Your task to perform on an android device: When is my next meeting? Image 0: 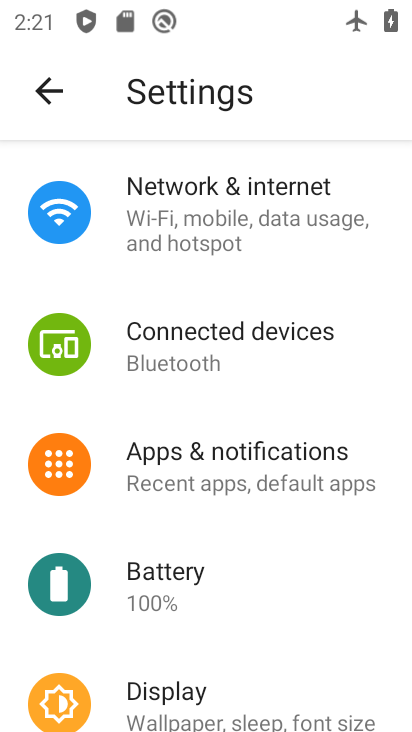
Step 0: press home button
Your task to perform on an android device: When is my next meeting? Image 1: 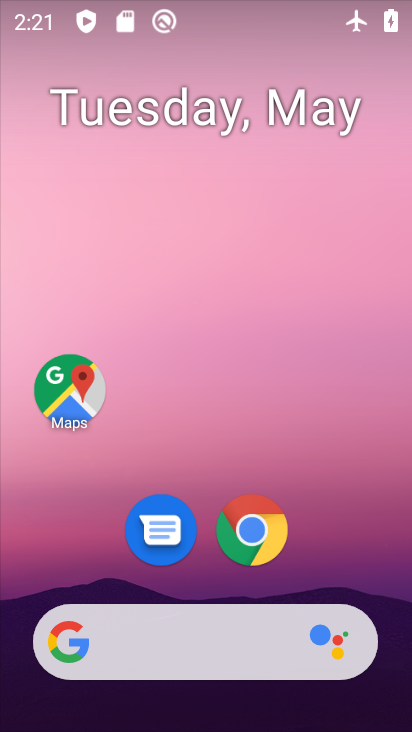
Step 1: drag from (206, 576) to (256, 125)
Your task to perform on an android device: When is my next meeting? Image 2: 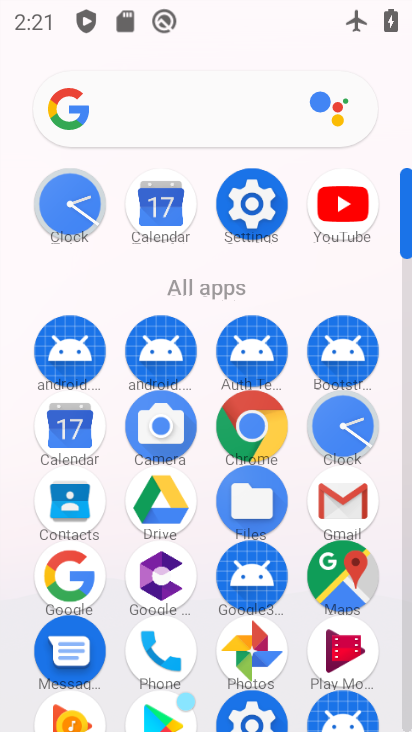
Step 2: click (143, 227)
Your task to perform on an android device: When is my next meeting? Image 3: 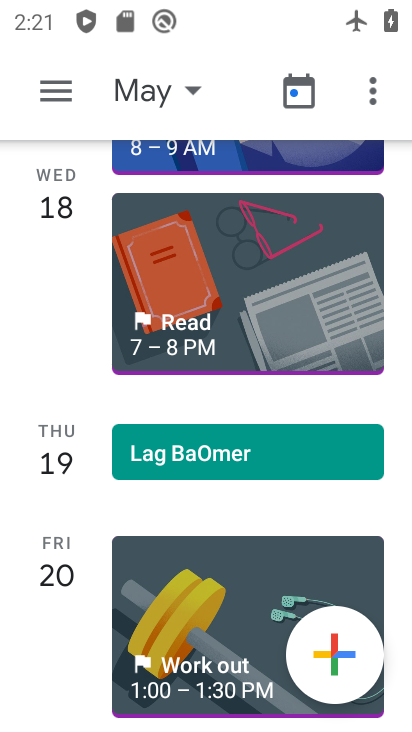
Step 3: click (174, 95)
Your task to perform on an android device: When is my next meeting? Image 4: 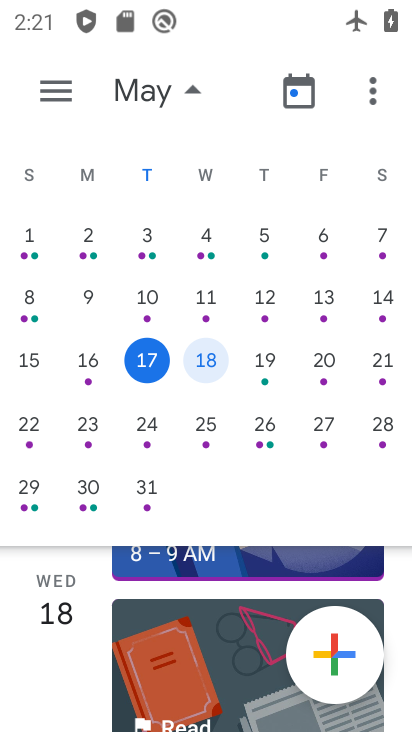
Step 4: click (174, 95)
Your task to perform on an android device: When is my next meeting? Image 5: 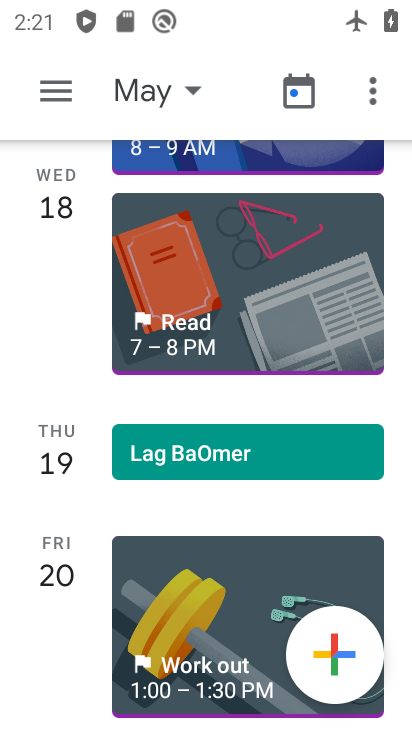
Step 5: task complete